Your task to perform on an android device: clear history in the chrome app Image 0: 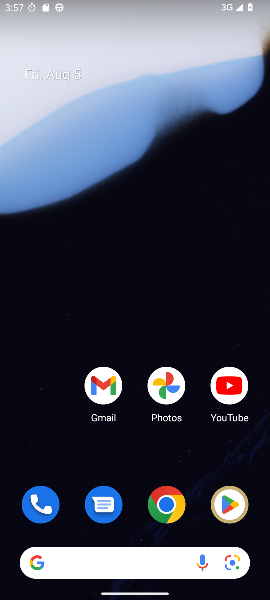
Step 0: click (167, 527)
Your task to perform on an android device: clear history in the chrome app Image 1: 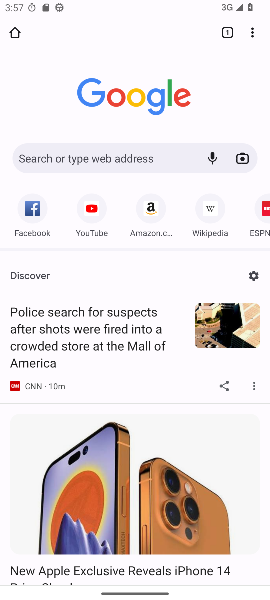
Step 1: click (255, 27)
Your task to perform on an android device: clear history in the chrome app Image 2: 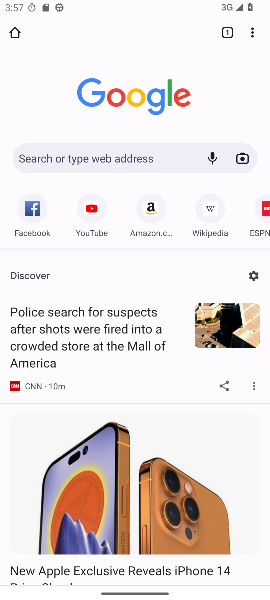
Step 2: click (245, 28)
Your task to perform on an android device: clear history in the chrome app Image 3: 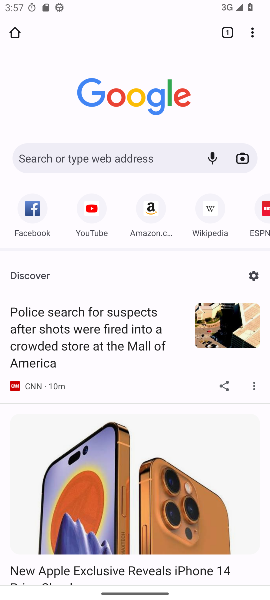
Step 3: click (253, 29)
Your task to perform on an android device: clear history in the chrome app Image 4: 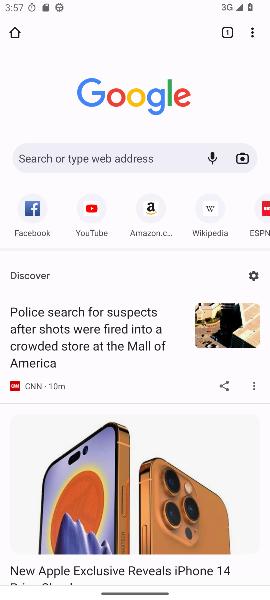
Step 4: click (253, 29)
Your task to perform on an android device: clear history in the chrome app Image 5: 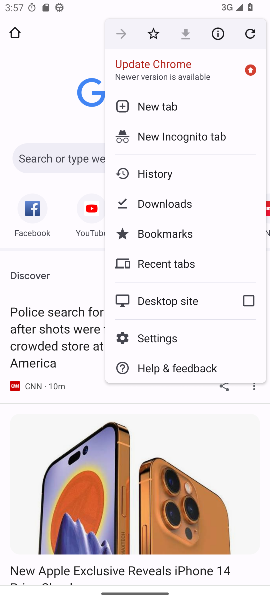
Step 5: click (151, 173)
Your task to perform on an android device: clear history in the chrome app Image 6: 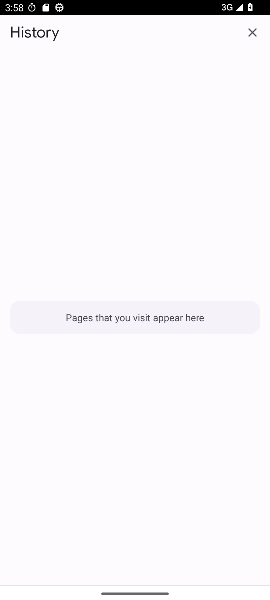
Step 6: task complete